Your task to perform on an android device: change the upload size in google photos Image 0: 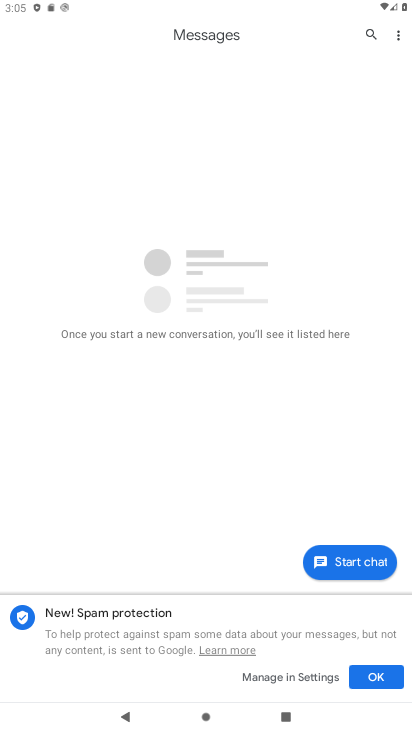
Step 0: press home button
Your task to perform on an android device: change the upload size in google photos Image 1: 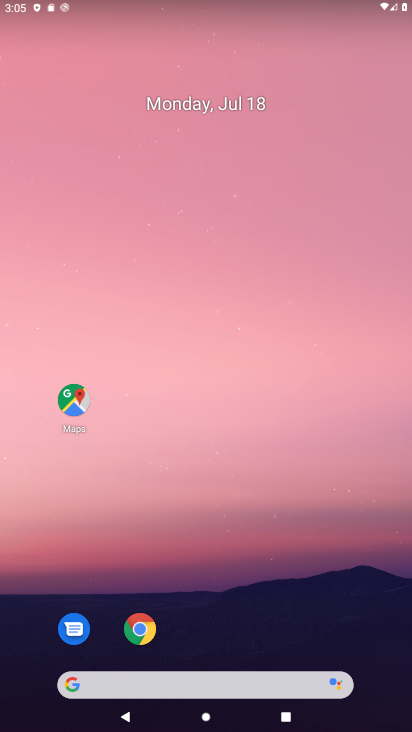
Step 1: drag from (251, 634) to (307, 14)
Your task to perform on an android device: change the upload size in google photos Image 2: 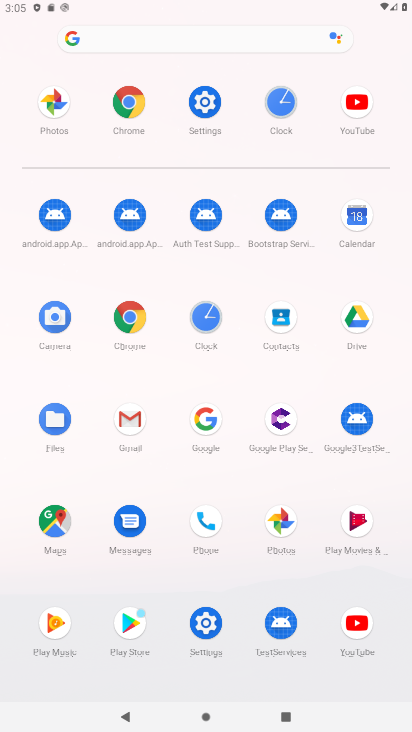
Step 2: click (290, 523)
Your task to perform on an android device: change the upload size in google photos Image 3: 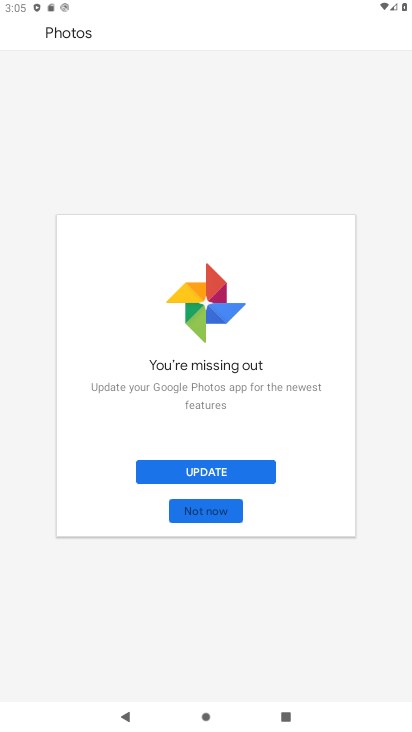
Step 3: press home button
Your task to perform on an android device: change the upload size in google photos Image 4: 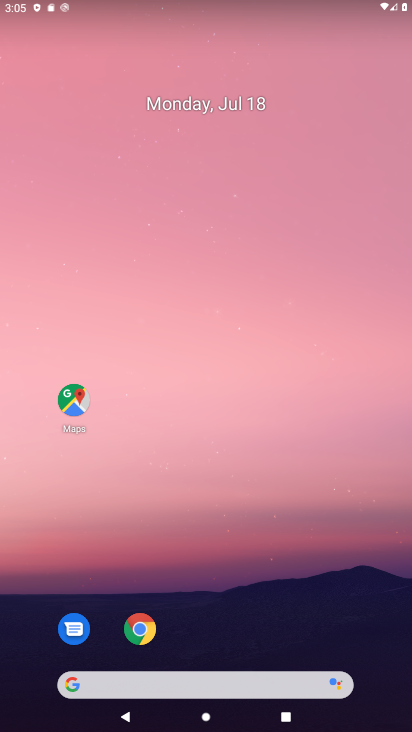
Step 4: drag from (207, 553) to (282, 8)
Your task to perform on an android device: change the upload size in google photos Image 5: 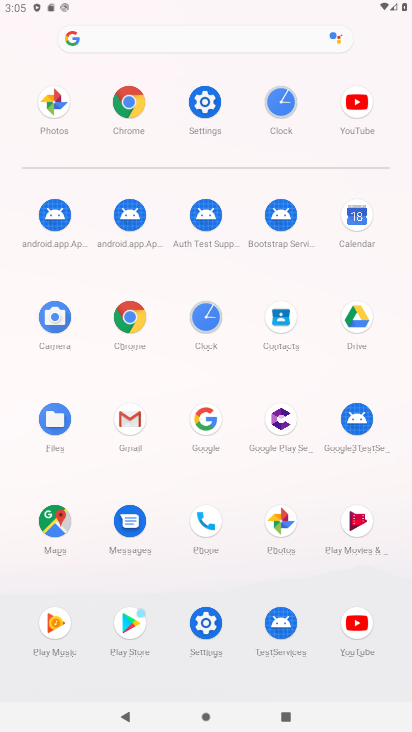
Step 5: click (280, 525)
Your task to perform on an android device: change the upload size in google photos Image 6: 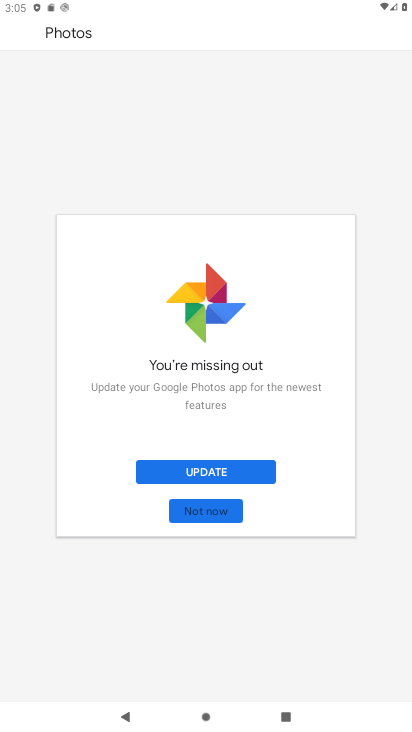
Step 6: click (203, 521)
Your task to perform on an android device: change the upload size in google photos Image 7: 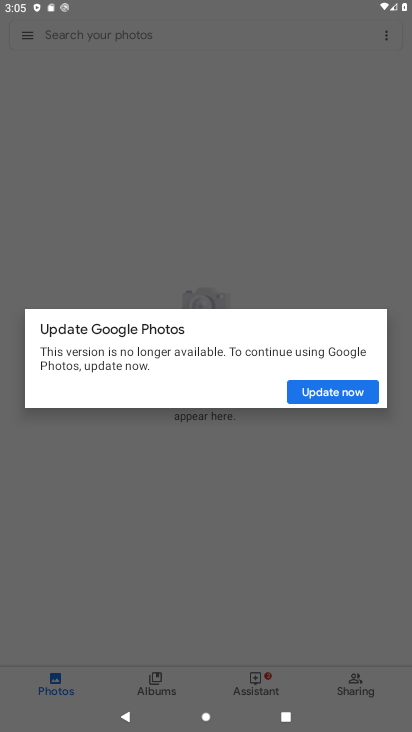
Step 7: click (330, 391)
Your task to perform on an android device: change the upload size in google photos Image 8: 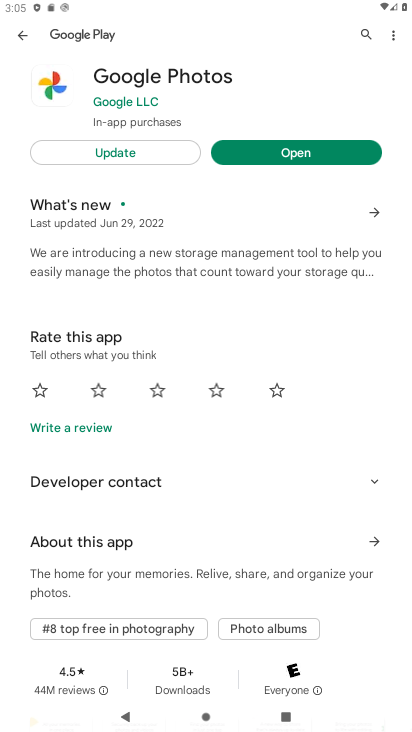
Step 8: click (296, 155)
Your task to perform on an android device: change the upload size in google photos Image 9: 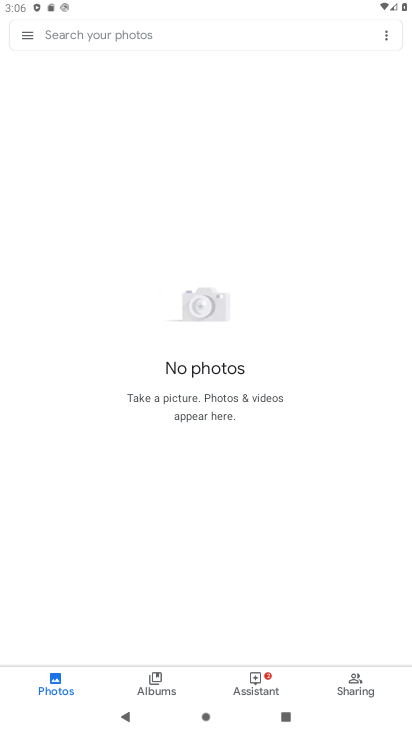
Step 9: click (33, 26)
Your task to perform on an android device: change the upload size in google photos Image 10: 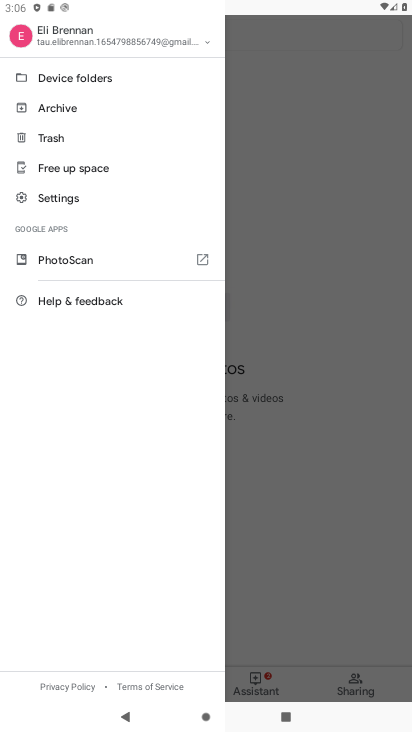
Step 10: click (66, 200)
Your task to perform on an android device: change the upload size in google photos Image 11: 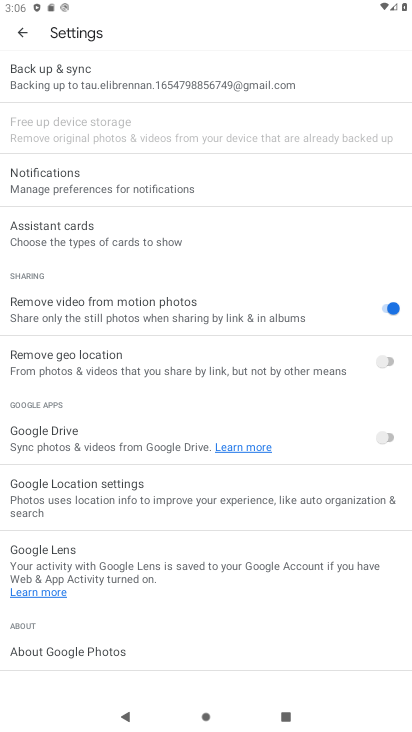
Step 11: click (108, 75)
Your task to perform on an android device: change the upload size in google photos Image 12: 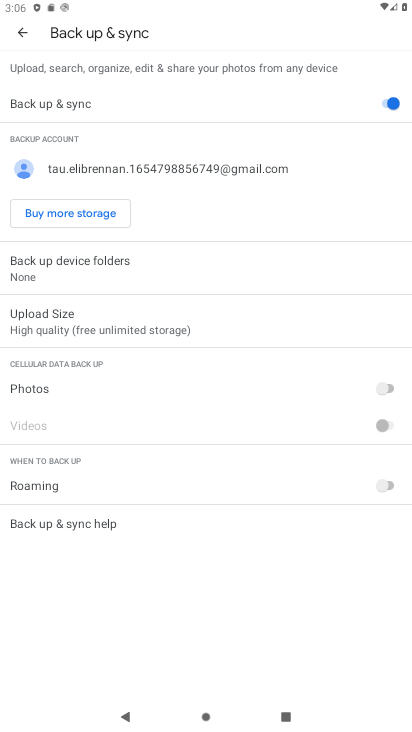
Step 12: click (73, 331)
Your task to perform on an android device: change the upload size in google photos Image 13: 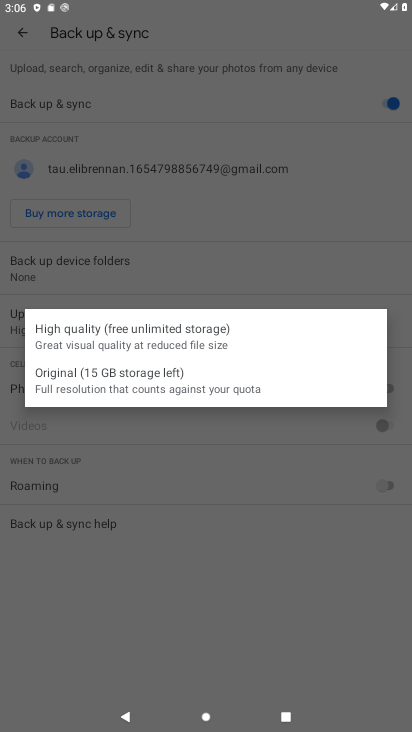
Step 13: click (109, 379)
Your task to perform on an android device: change the upload size in google photos Image 14: 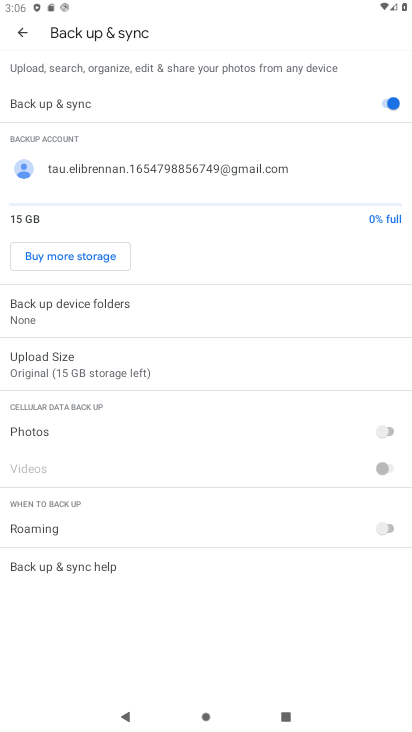
Step 14: task complete